Your task to perform on an android device: open the mobile data screen to see how much data has been used Image 0: 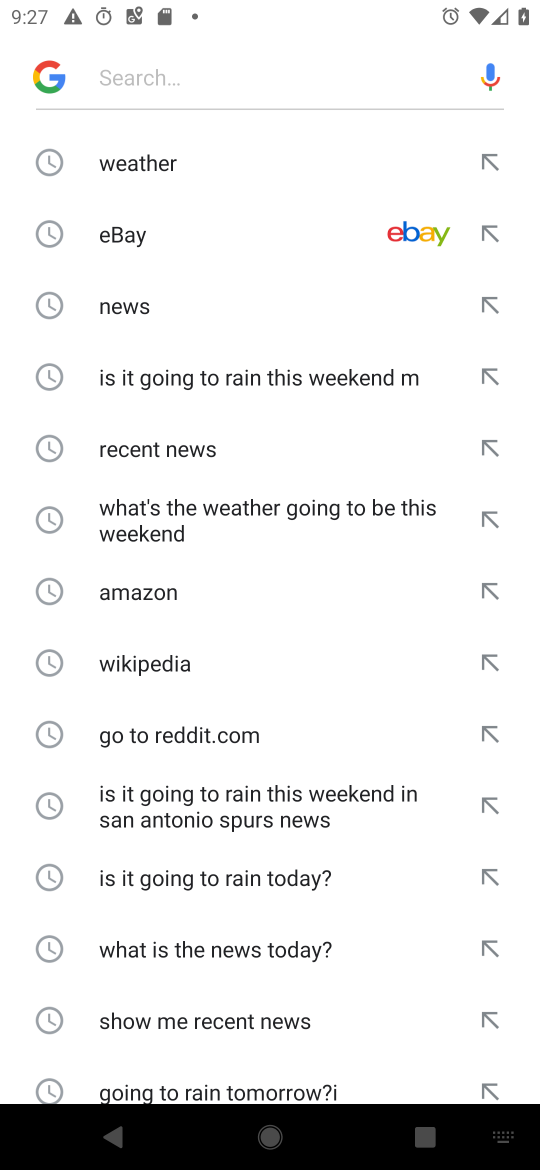
Step 0: click (203, 10)
Your task to perform on an android device: open the mobile data screen to see how much data has been used Image 1: 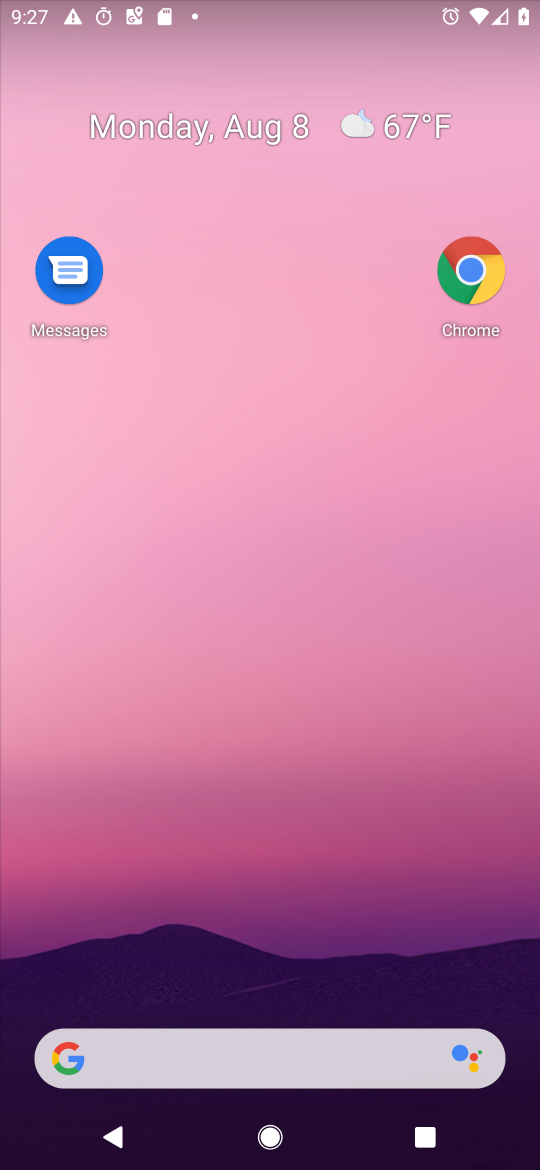
Step 1: click (388, 544)
Your task to perform on an android device: open the mobile data screen to see how much data has been used Image 2: 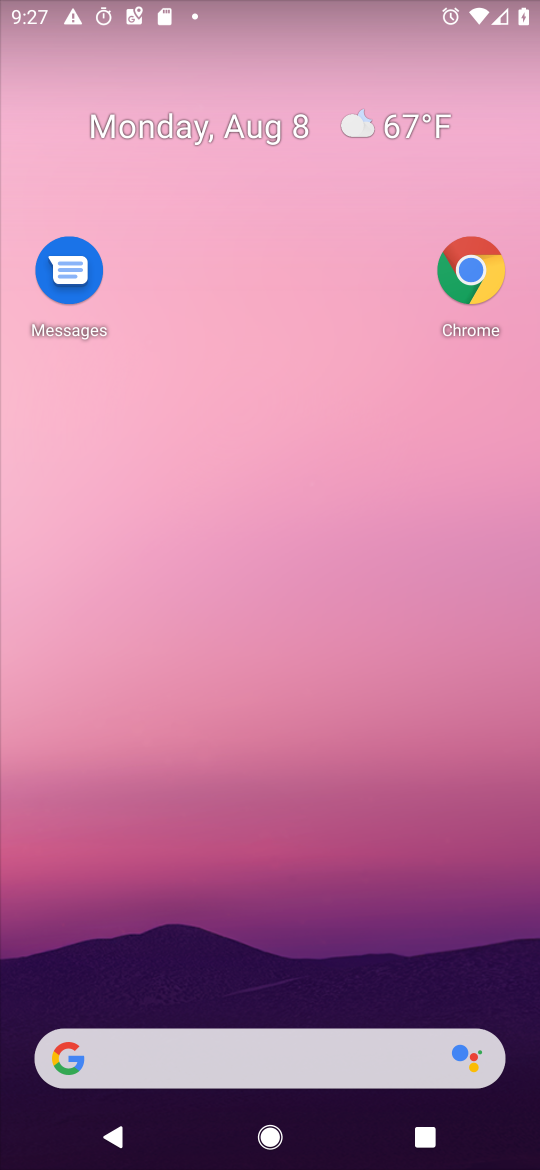
Step 2: press home button
Your task to perform on an android device: open the mobile data screen to see how much data has been used Image 3: 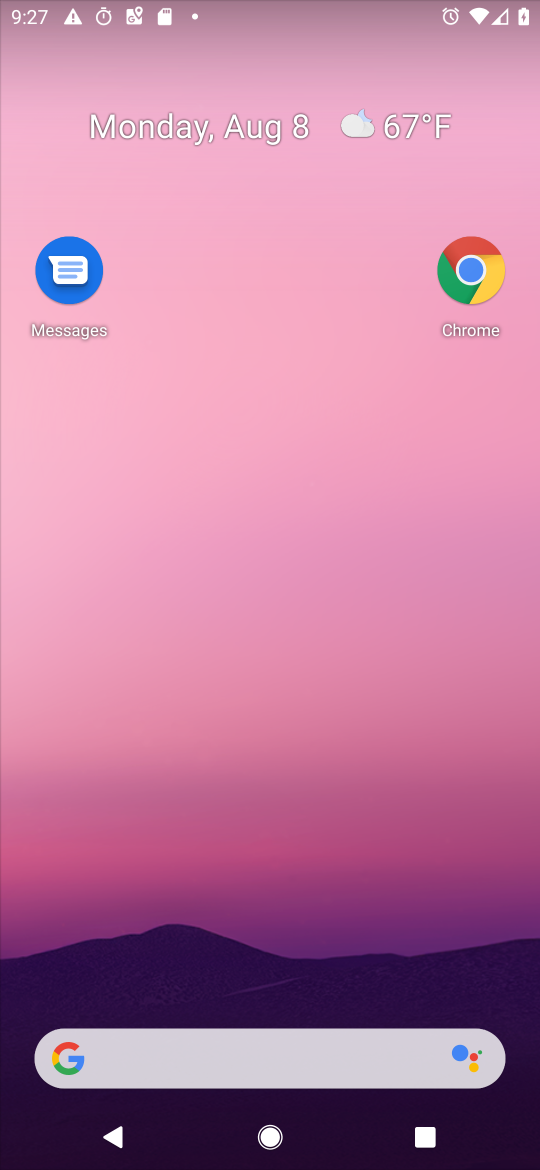
Step 3: drag from (257, 877) to (370, 141)
Your task to perform on an android device: open the mobile data screen to see how much data has been used Image 4: 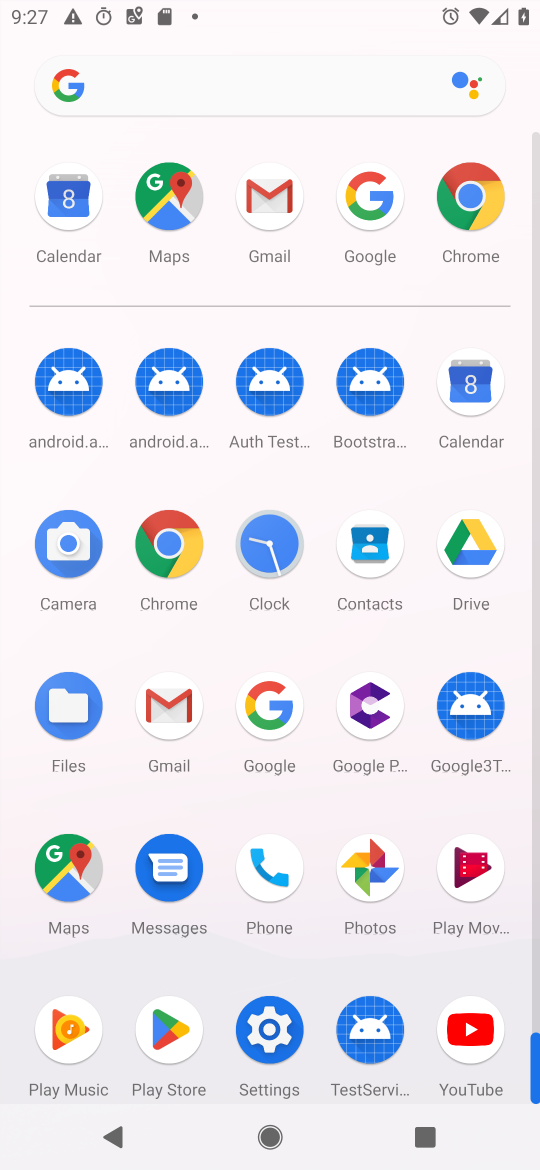
Step 4: click (270, 1004)
Your task to perform on an android device: open the mobile data screen to see how much data has been used Image 5: 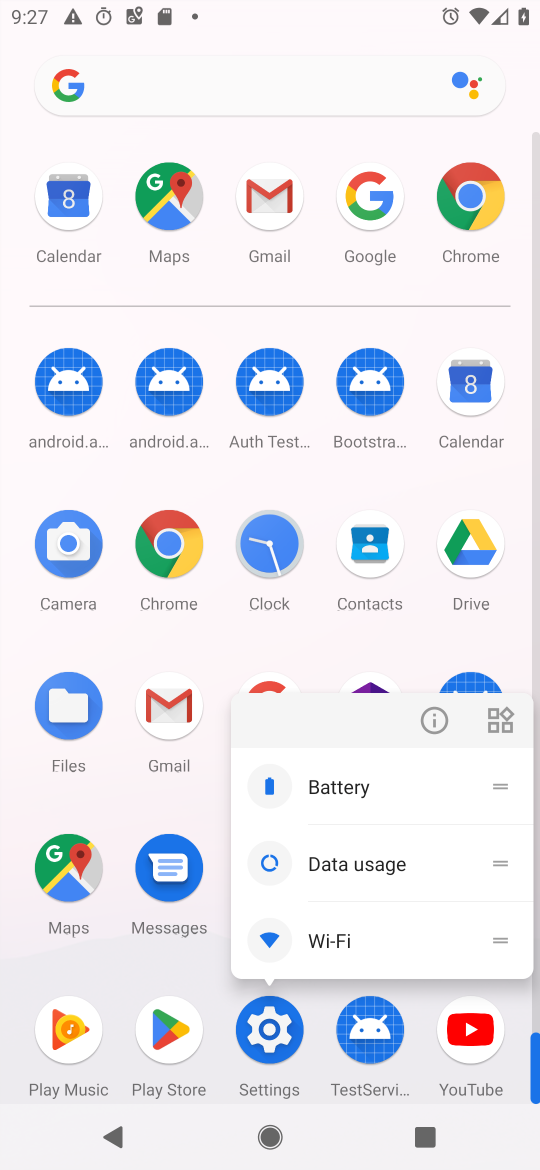
Step 5: click (418, 710)
Your task to perform on an android device: open the mobile data screen to see how much data has been used Image 6: 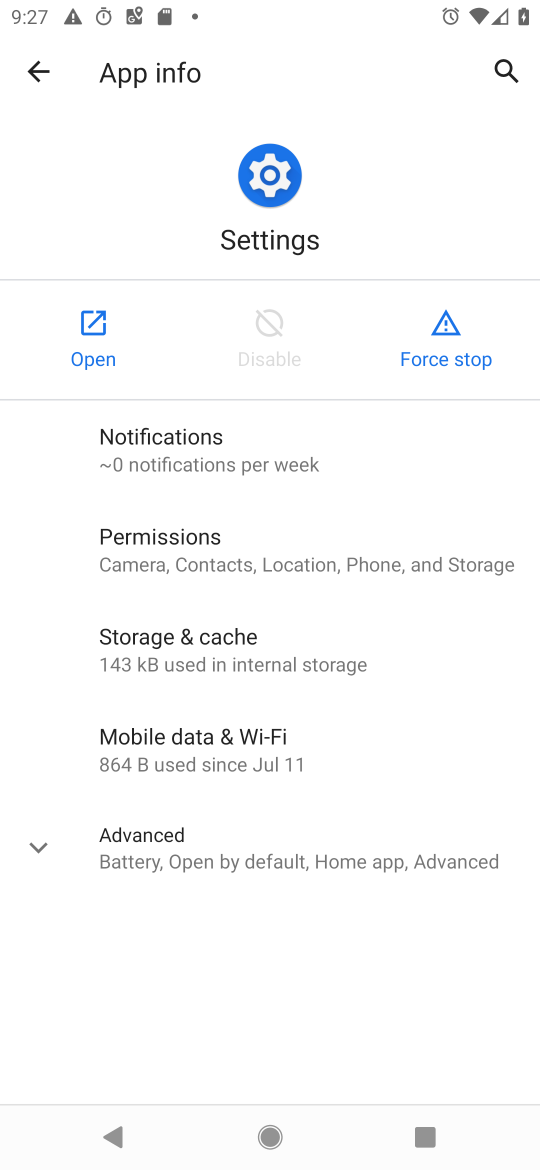
Step 6: click (97, 313)
Your task to perform on an android device: open the mobile data screen to see how much data has been used Image 7: 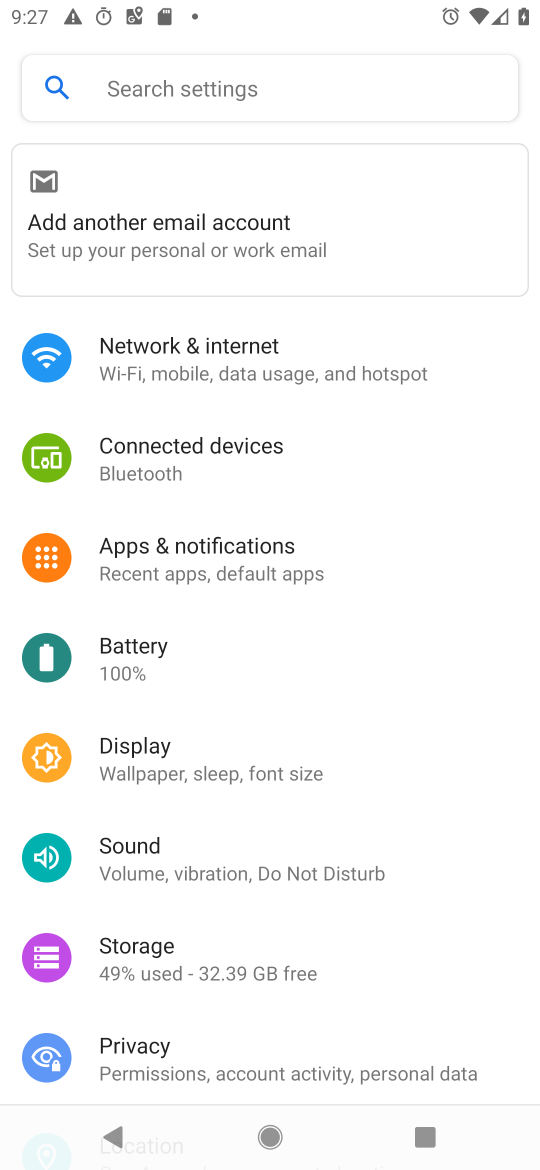
Step 7: click (159, 369)
Your task to perform on an android device: open the mobile data screen to see how much data has been used Image 8: 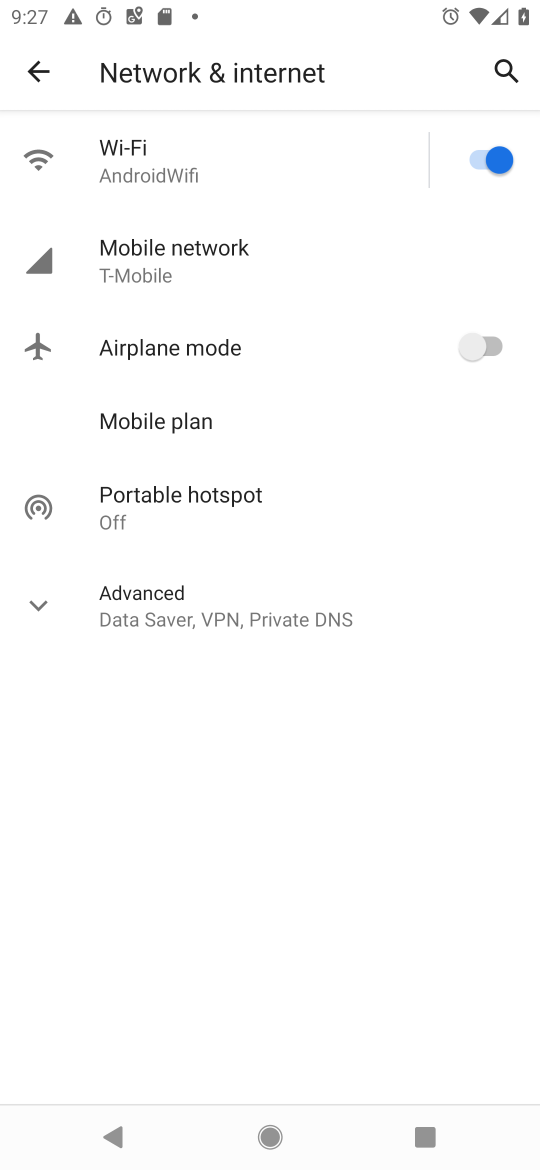
Step 8: click (190, 265)
Your task to perform on an android device: open the mobile data screen to see how much data has been used Image 9: 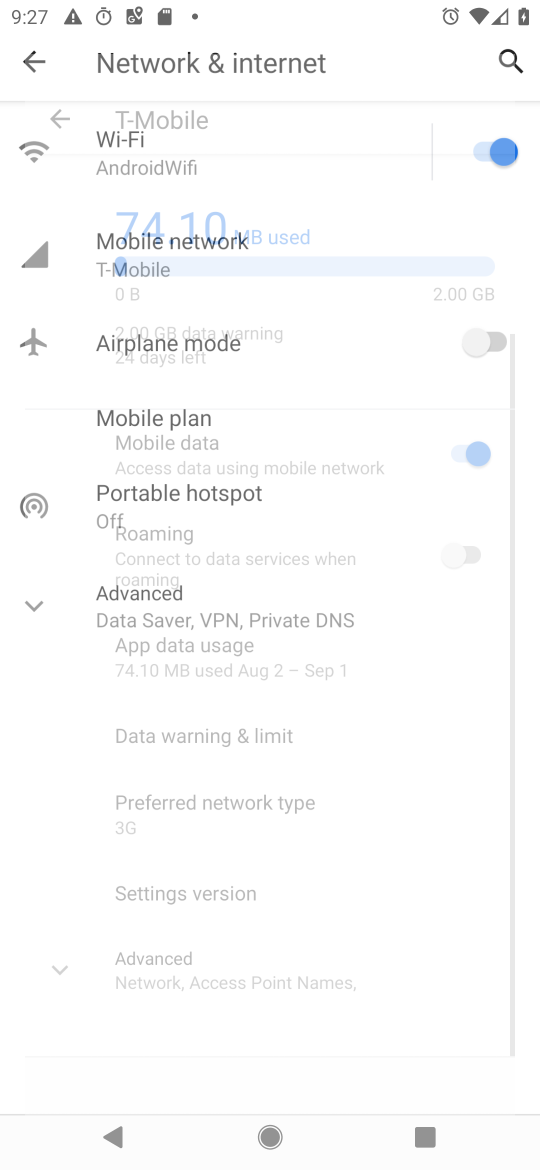
Step 9: task complete